Your task to perform on an android device: open the mobile data screen to see how much data has been used Image 0: 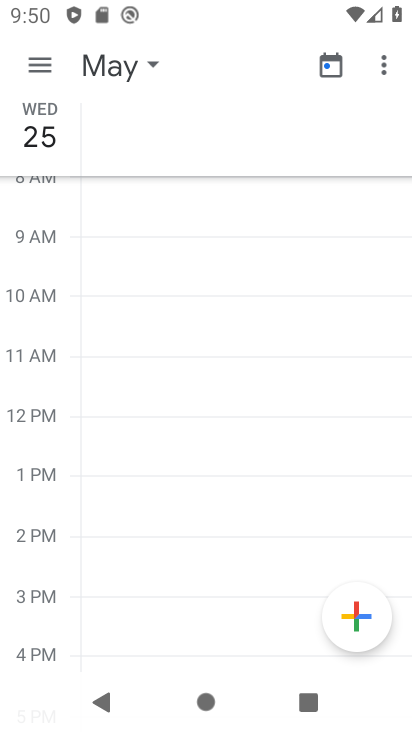
Step 0: drag from (221, 605) to (204, 467)
Your task to perform on an android device: open the mobile data screen to see how much data has been used Image 1: 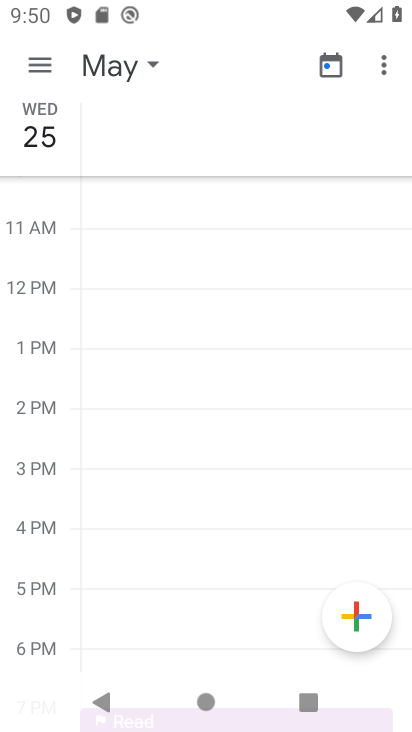
Step 1: press home button
Your task to perform on an android device: open the mobile data screen to see how much data has been used Image 2: 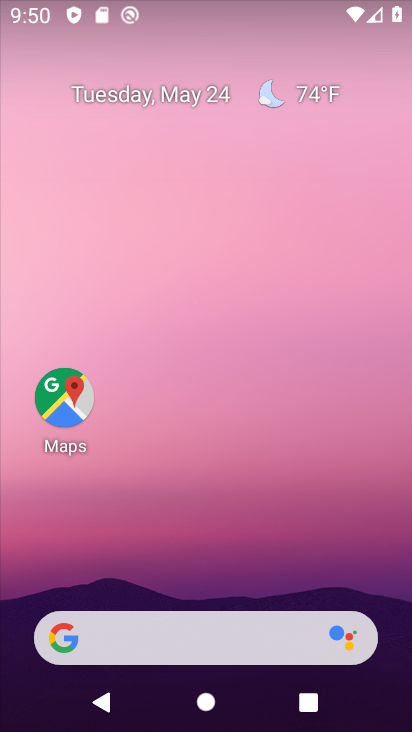
Step 2: drag from (225, 584) to (125, 41)
Your task to perform on an android device: open the mobile data screen to see how much data has been used Image 3: 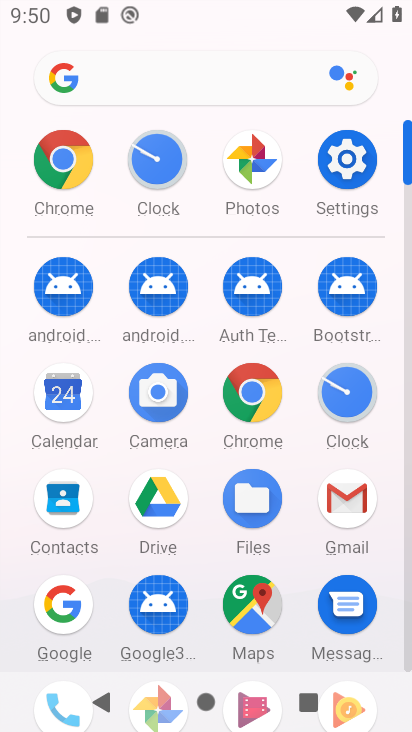
Step 3: click (343, 172)
Your task to perform on an android device: open the mobile data screen to see how much data has been used Image 4: 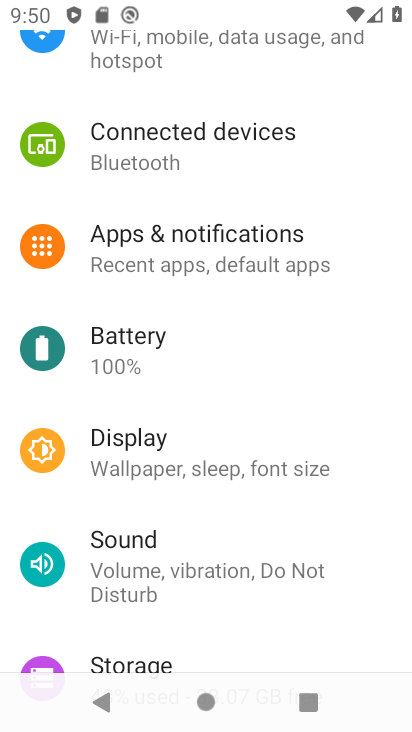
Step 4: click (235, 62)
Your task to perform on an android device: open the mobile data screen to see how much data has been used Image 5: 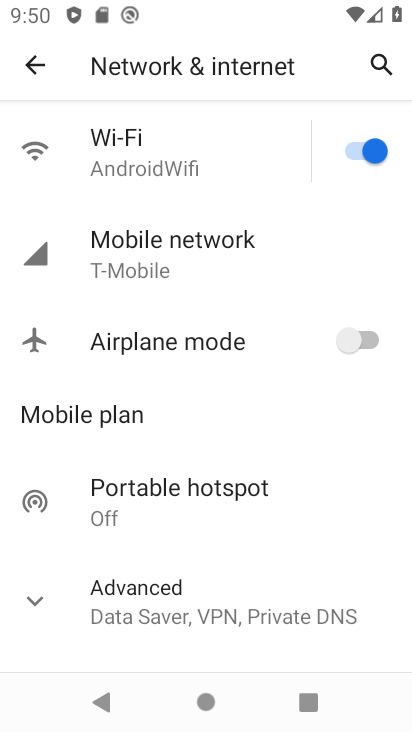
Step 5: click (163, 258)
Your task to perform on an android device: open the mobile data screen to see how much data has been used Image 6: 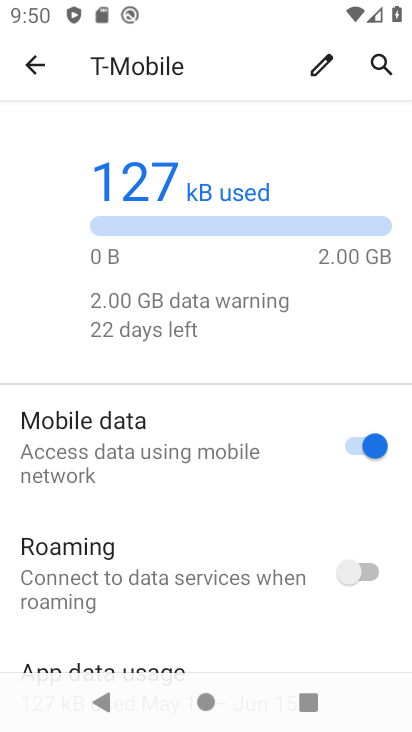
Step 6: task complete